Your task to perform on an android device: Add "razer huntsman" to the cart on amazon.com, then select checkout. Image 0: 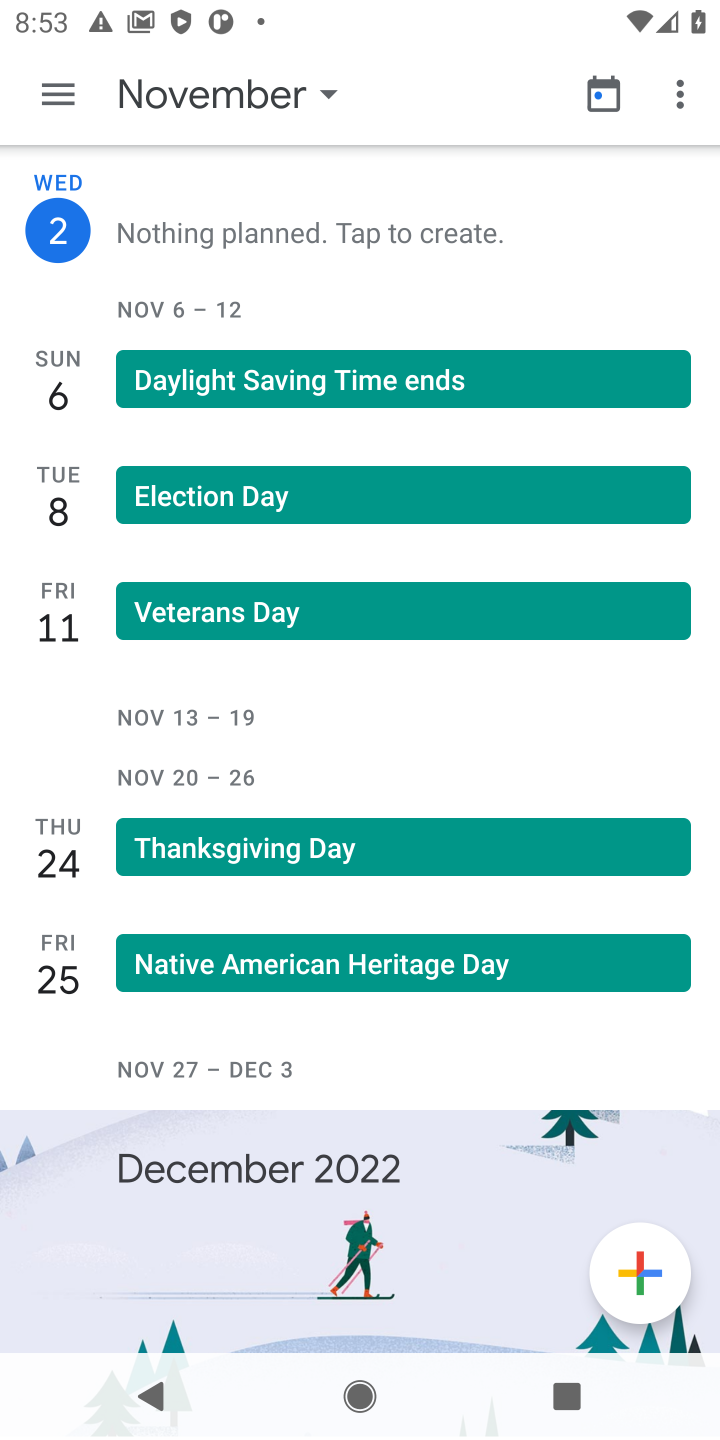
Step 0: press home button
Your task to perform on an android device: Add "razer huntsman" to the cart on amazon.com, then select checkout. Image 1: 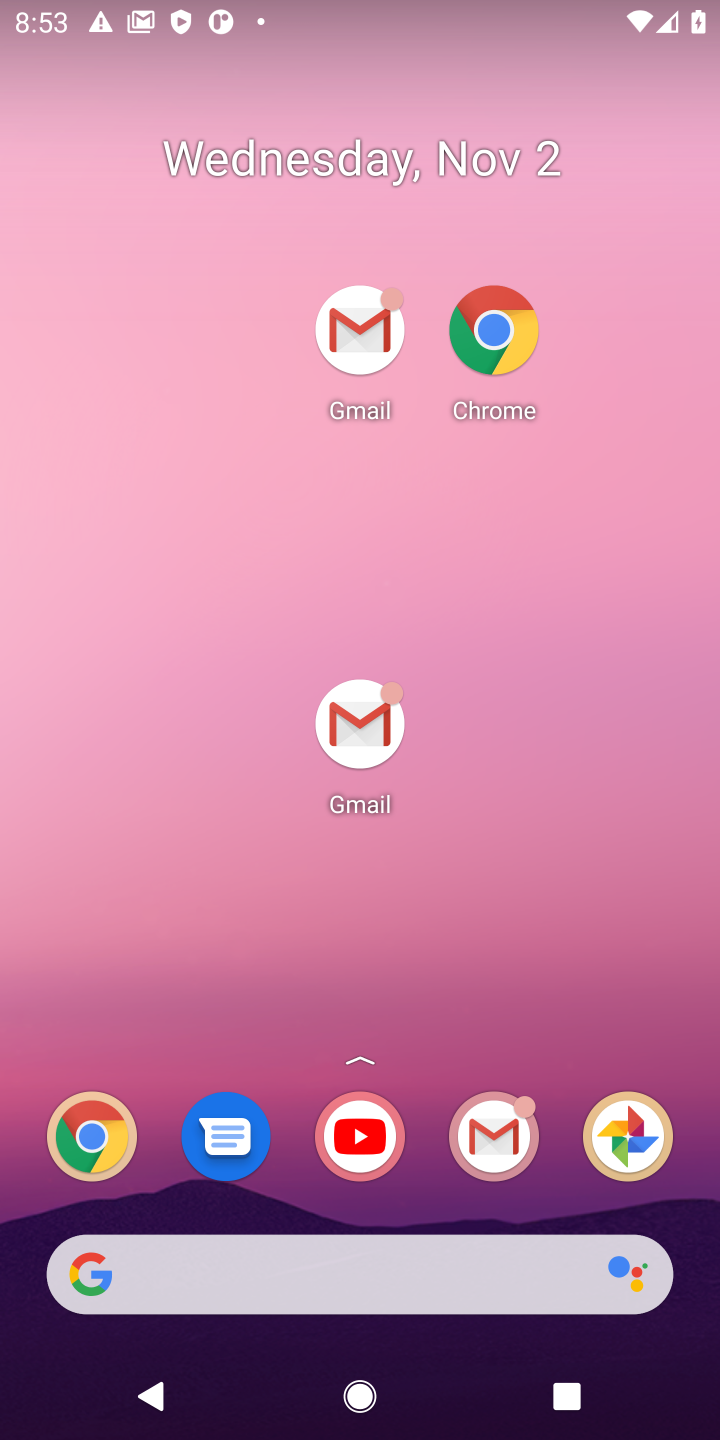
Step 1: drag from (282, 1269) to (289, 408)
Your task to perform on an android device: Add "razer huntsman" to the cart on amazon.com, then select checkout. Image 2: 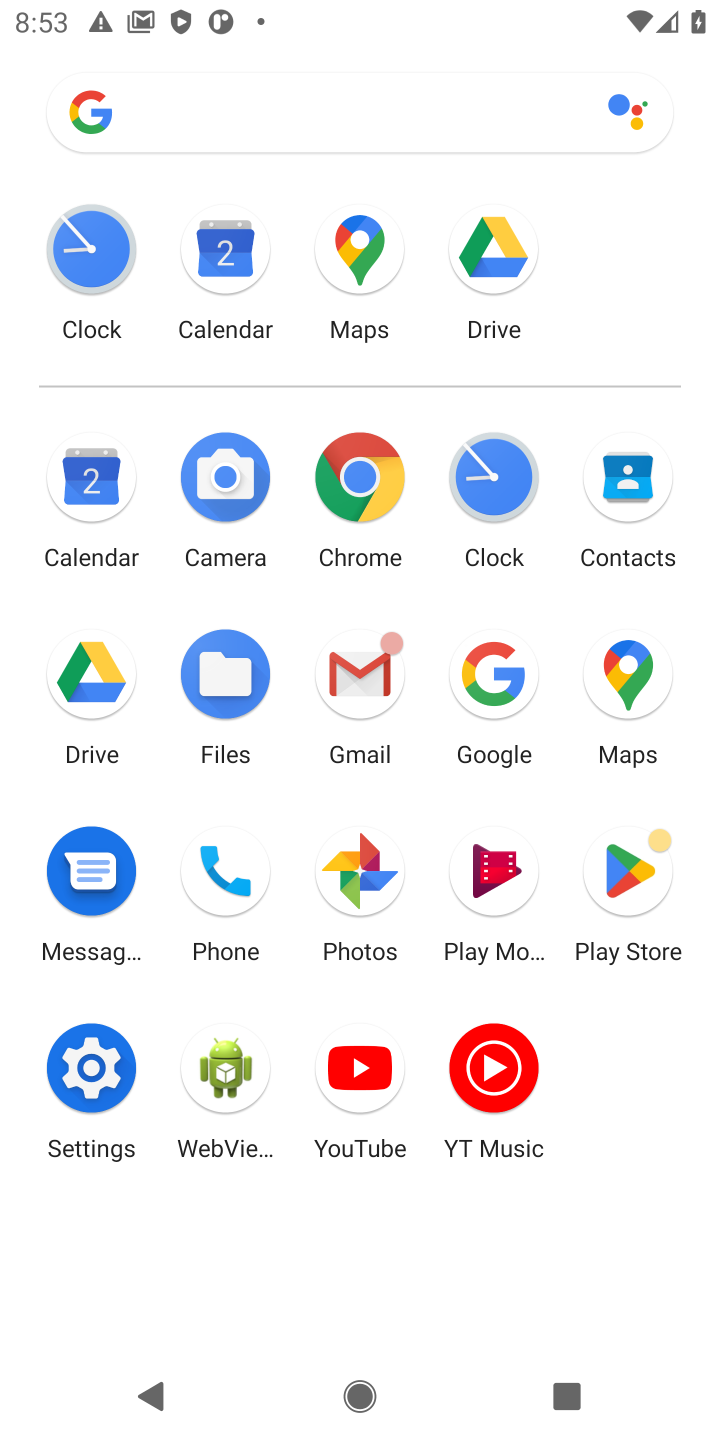
Step 2: click (501, 666)
Your task to perform on an android device: Add "razer huntsman" to the cart on amazon.com, then select checkout. Image 3: 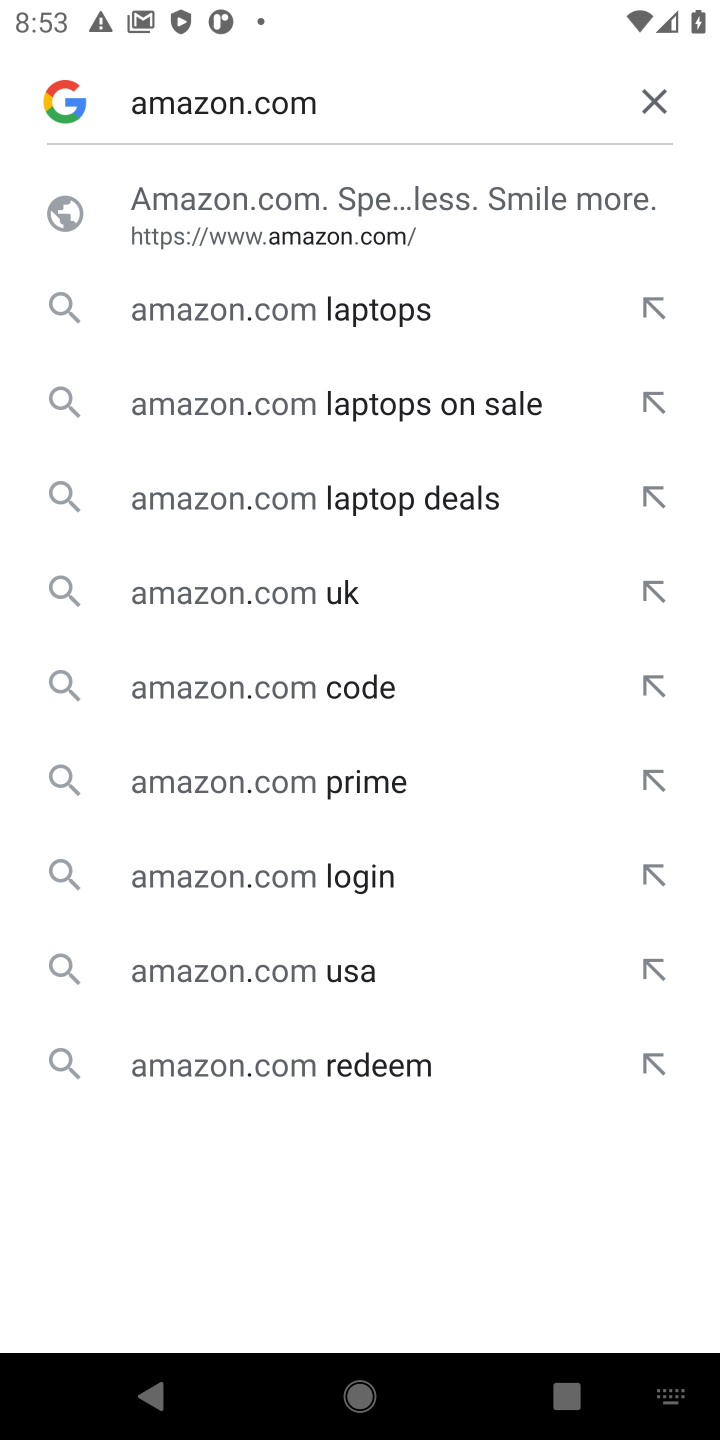
Step 3: click (240, 210)
Your task to perform on an android device: Add "razer huntsman" to the cart on amazon.com, then select checkout. Image 4: 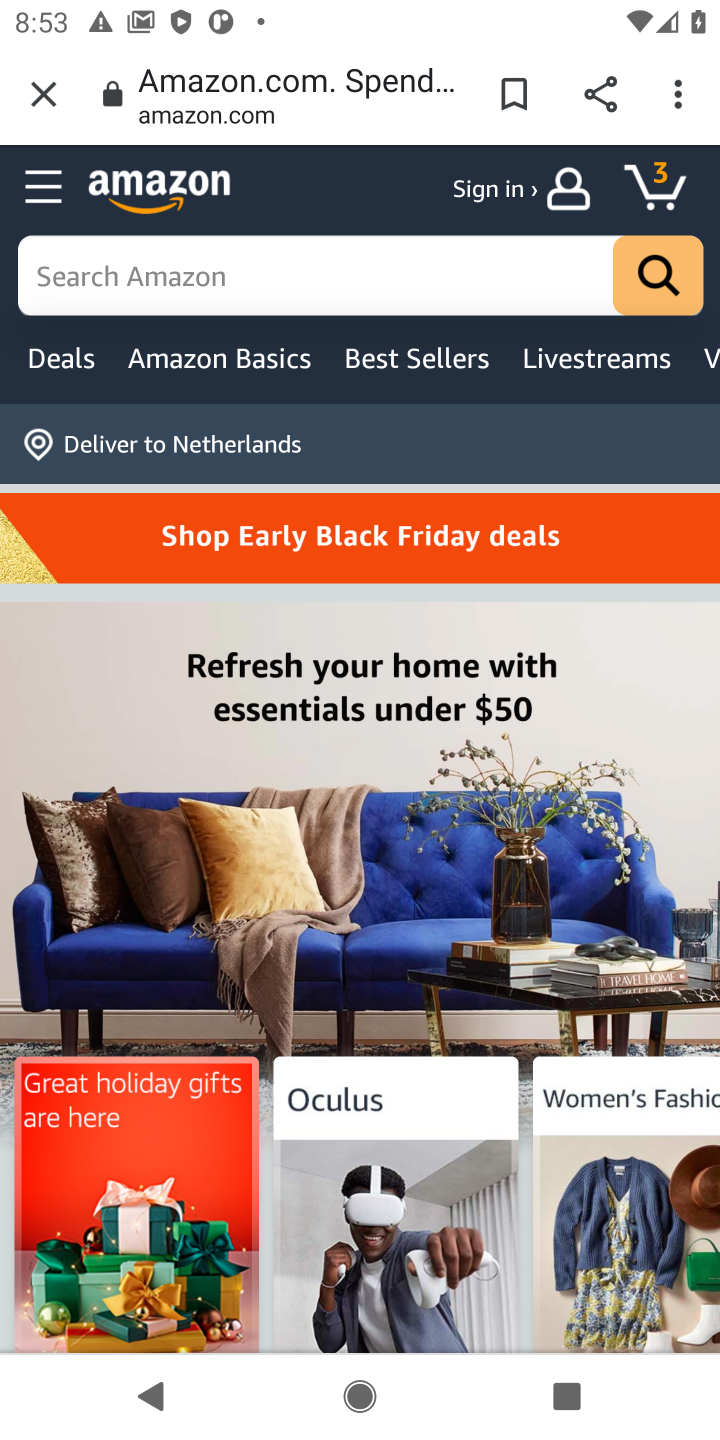
Step 4: click (374, 268)
Your task to perform on an android device: Add "razer huntsman" to the cart on amazon.com, then select checkout. Image 5: 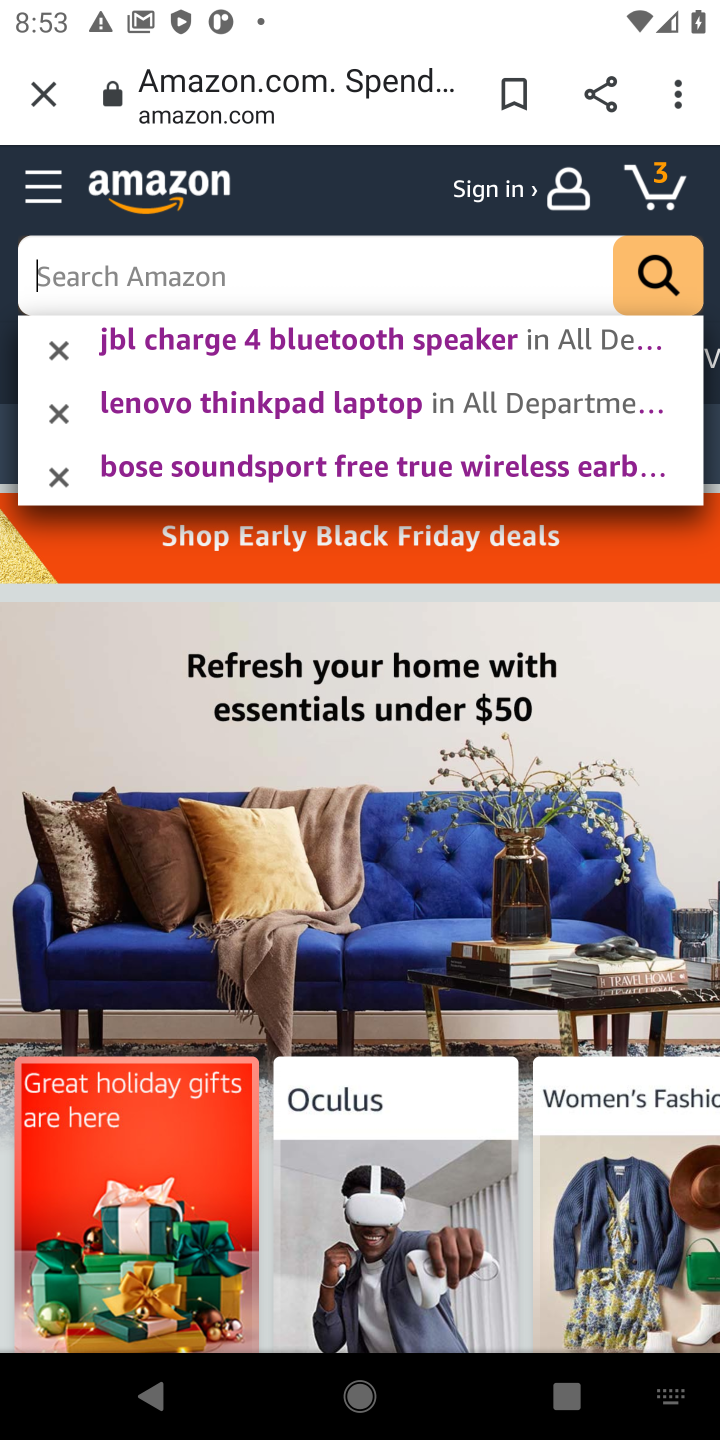
Step 5: click (401, 242)
Your task to perform on an android device: Add "razer huntsman" to the cart on amazon.com, then select checkout. Image 6: 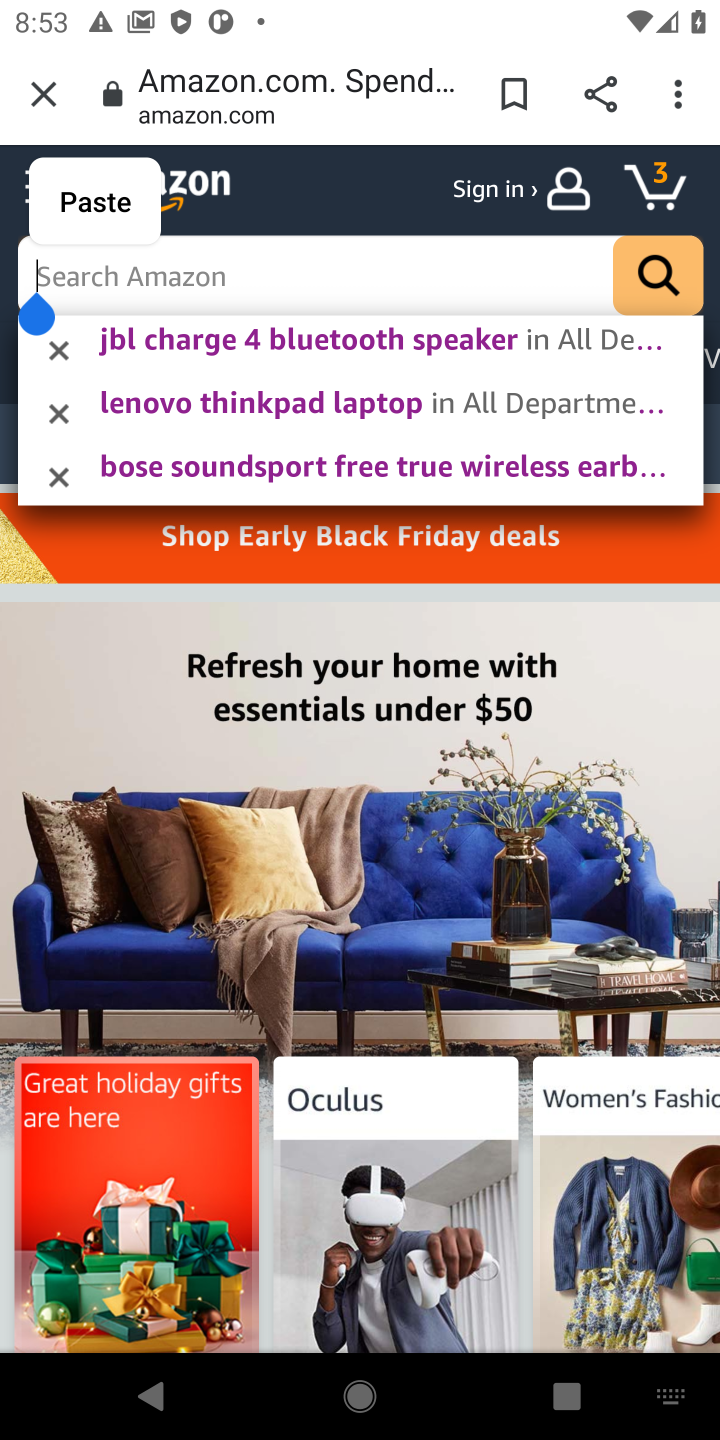
Step 6: type "razer huntsman "
Your task to perform on an android device: Add "razer huntsman" to the cart on amazon.com, then select checkout. Image 7: 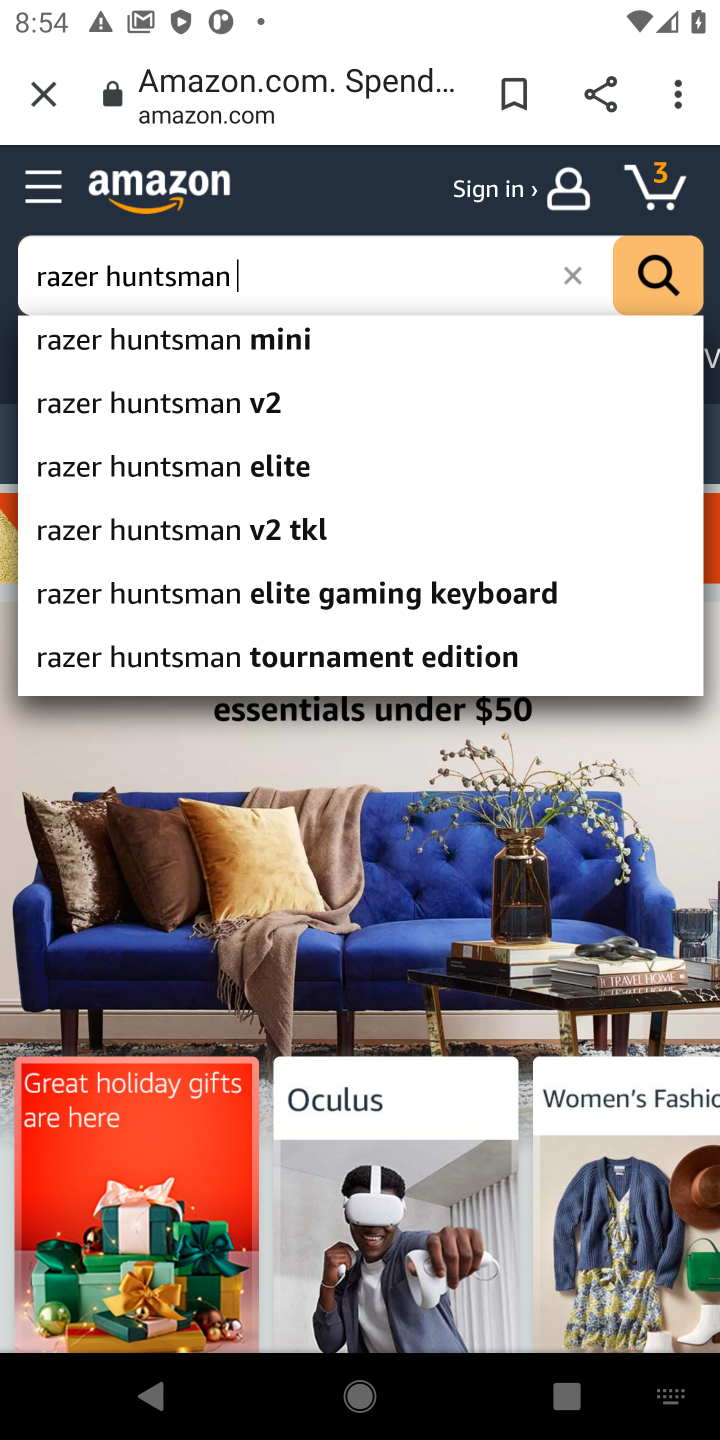
Step 7: click (203, 338)
Your task to perform on an android device: Add "razer huntsman" to the cart on amazon.com, then select checkout. Image 8: 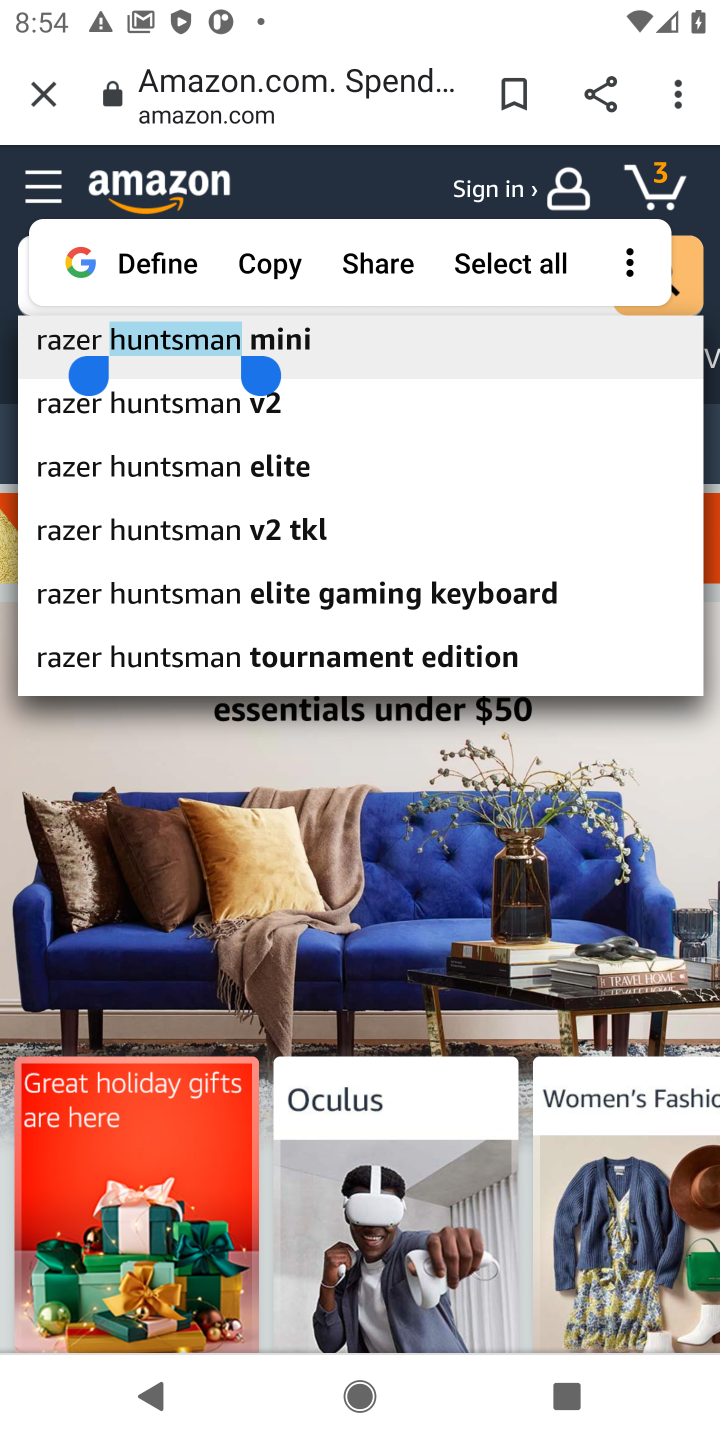
Step 8: click (364, 345)
Your task to perform on an android device: Add "razer huntsman" to the cart on amazon.com, then select checkout. Image 9: 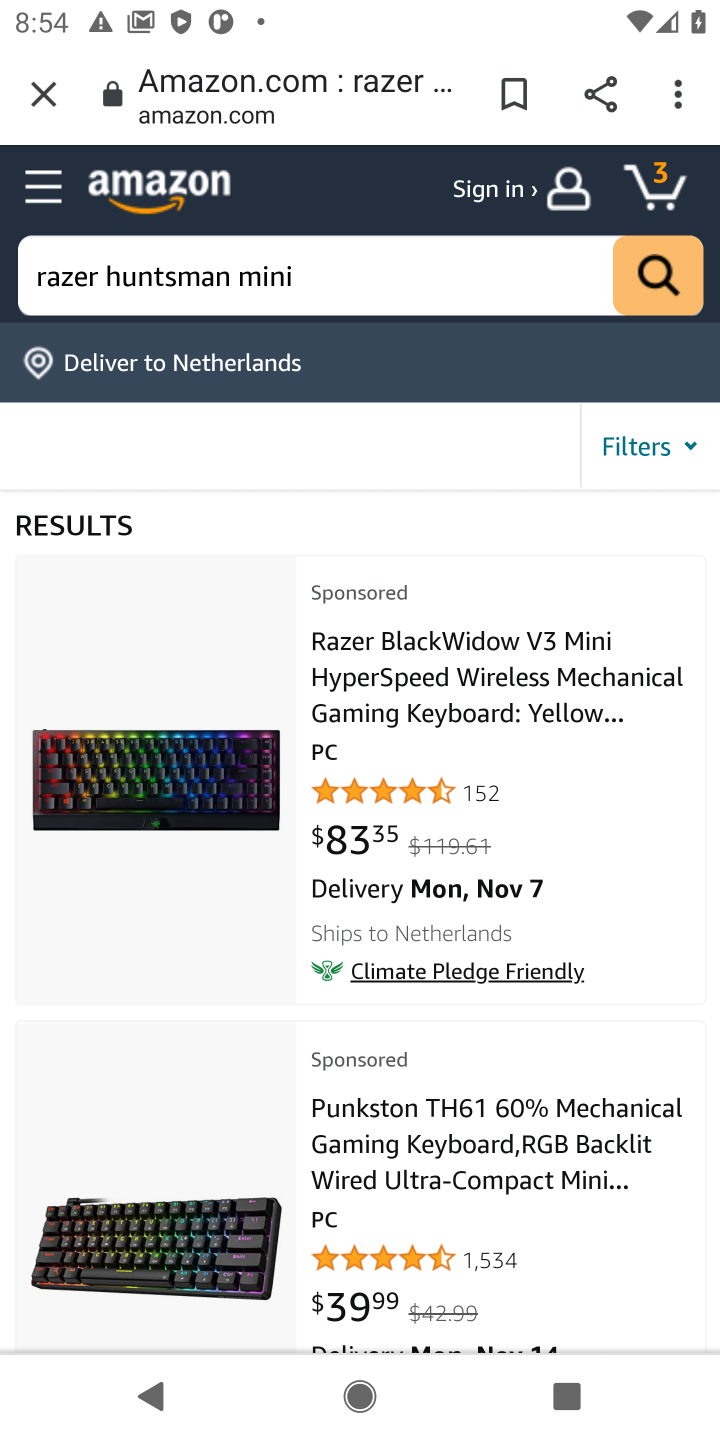
Step 9: click (512, 666)
Your task to perform on an android device: Add "razer huntsman" to the cart on amazon.com, then select checkout. Image 10: 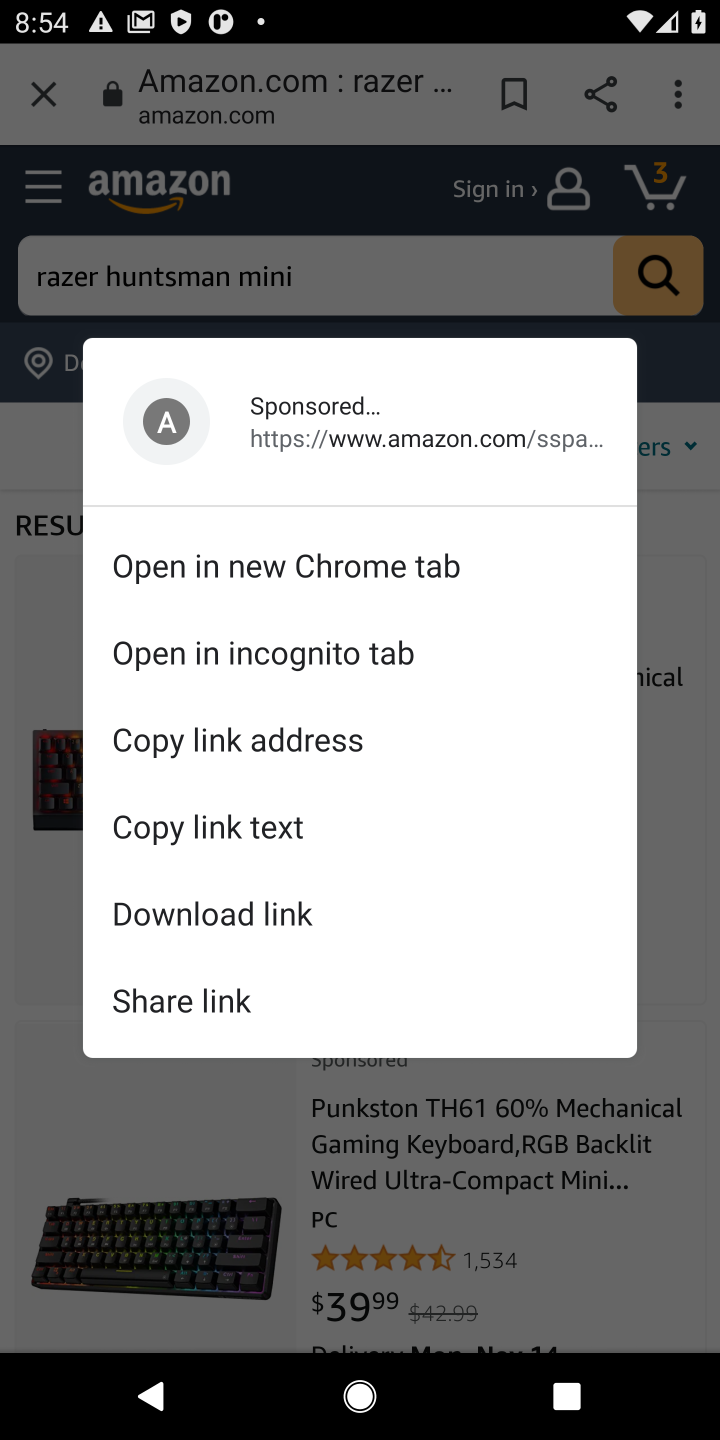
Step 10: click (701, 562)
Your task to perform on an android device: Add "razer huntsman" to the cart on amazon.com, then select checkout. Image 11: 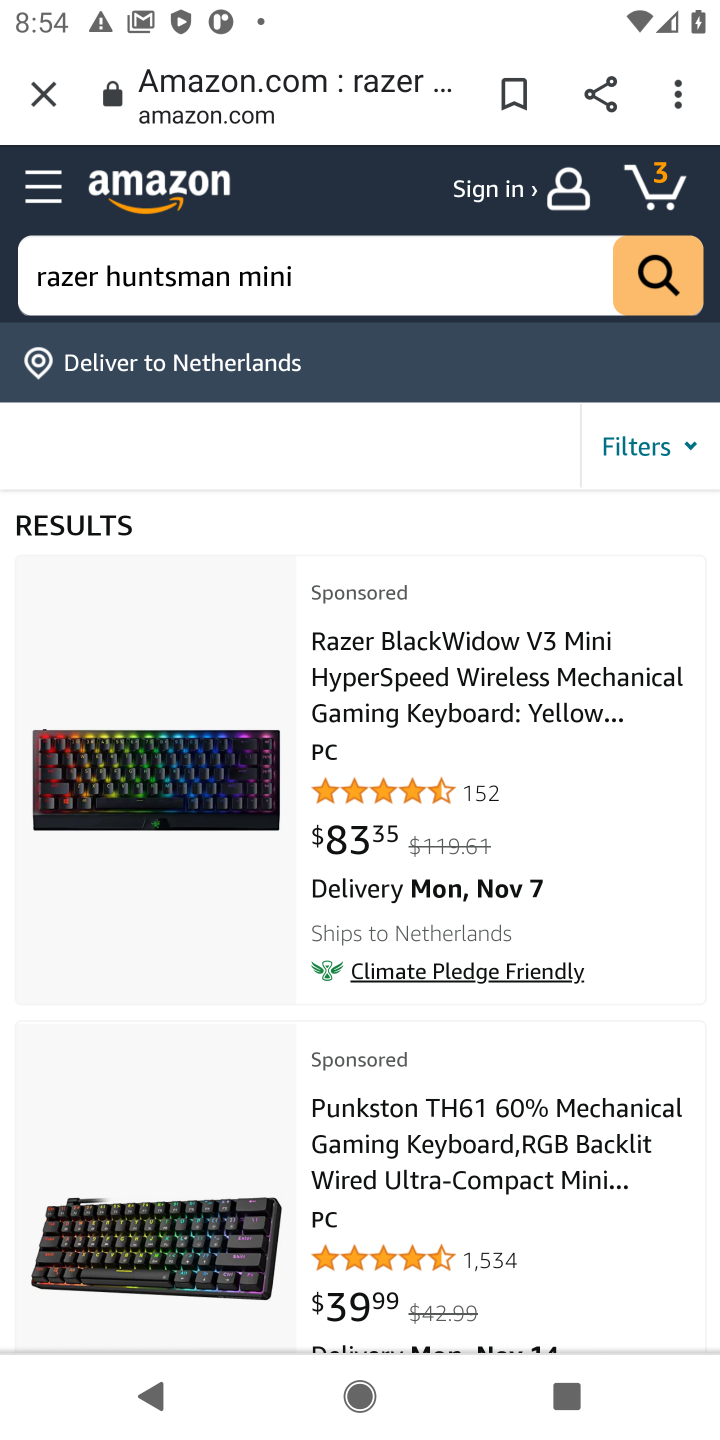
Step 11: click (402, 895)
Your task to perform on an android device: Add "razer huntsman" to the cart on amazon.com, then select checkout. Image 12: 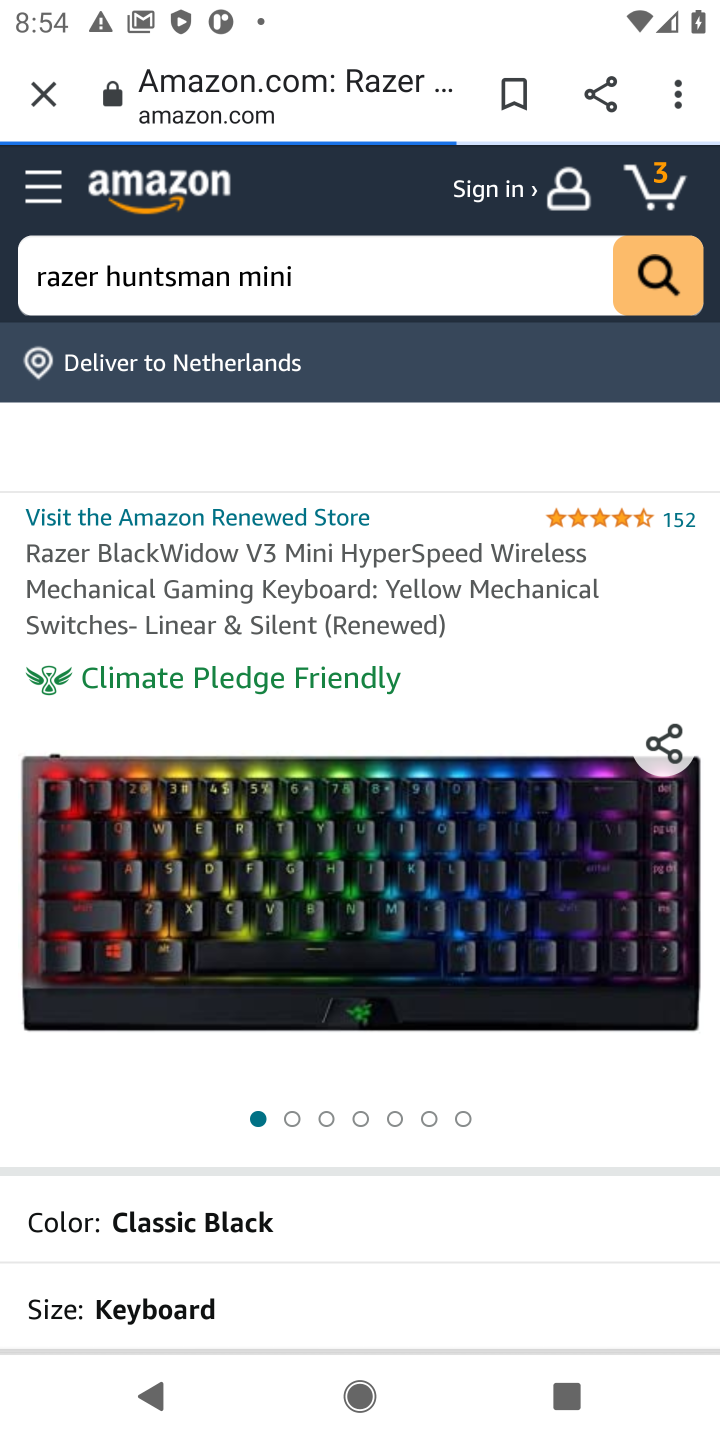
Step 12: drag from (500, 1098) to (497, 474)
Your task to perform on an android device: Add "razer huntsman" to the cart on amazon.com, then select checkout. Image 13: 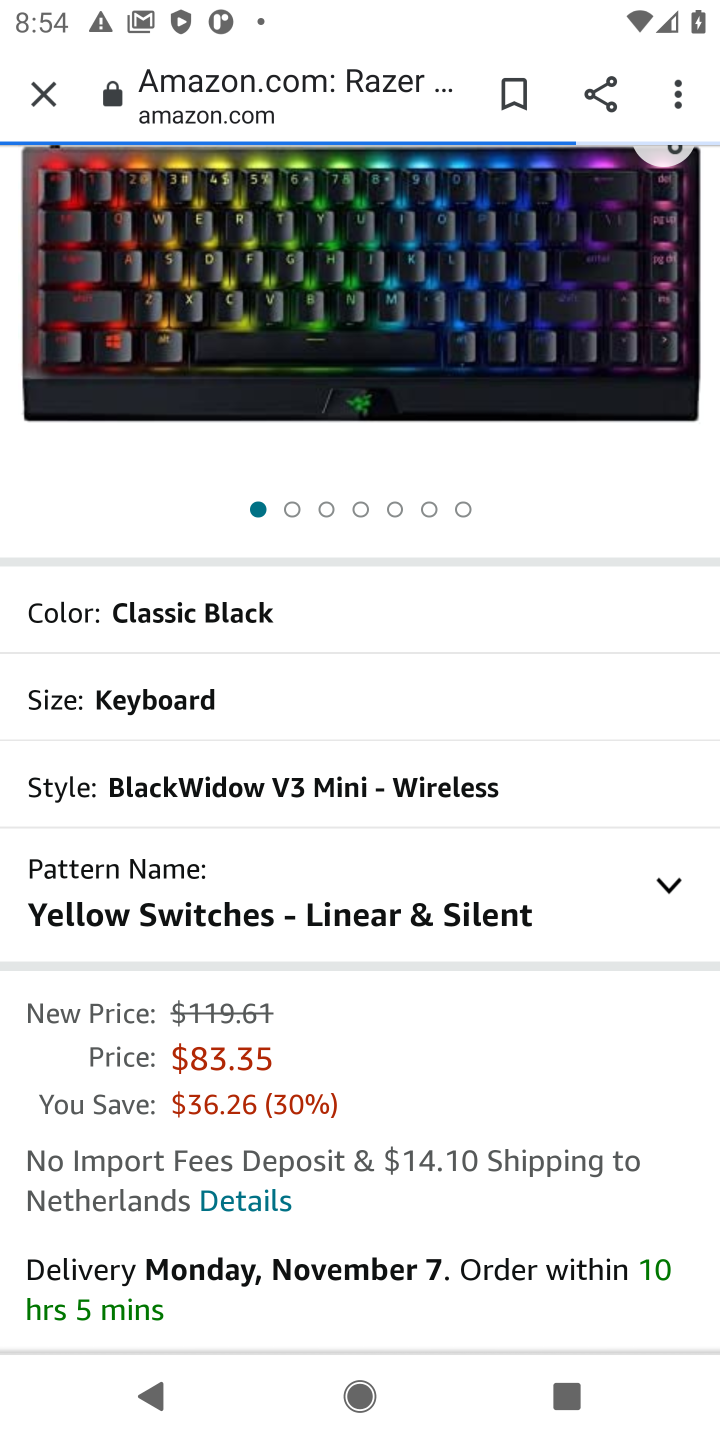
Step 13: drag from (422, 971) to (466, 323)
Your task to perform on an android device: Add "razer huntsman" to the cart on amazon.com, then select checkout. Image 14: 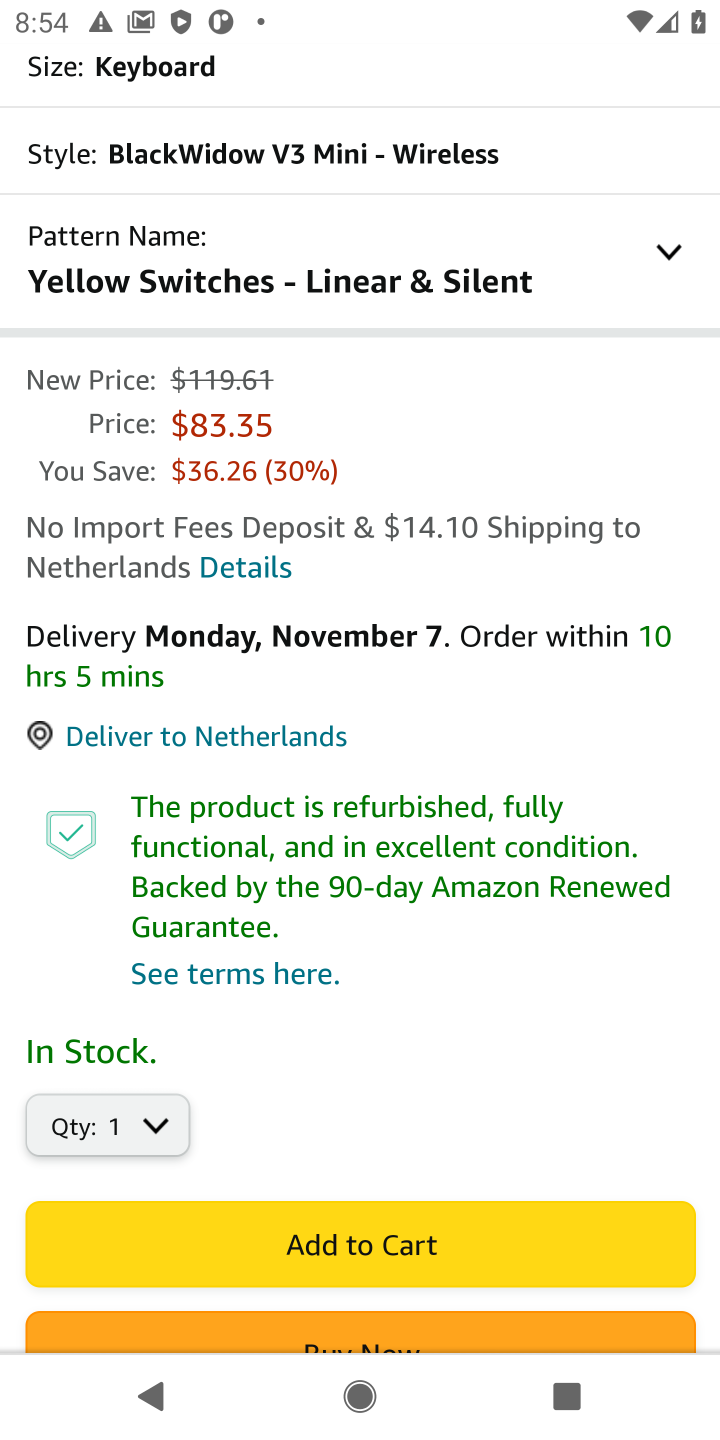
Step 14: drag from (377, 1095) to (421, 557)
Your task to perform on an android device: Add "razer huntsman" to the cart on amazon.com, then select checkout. Image 15: 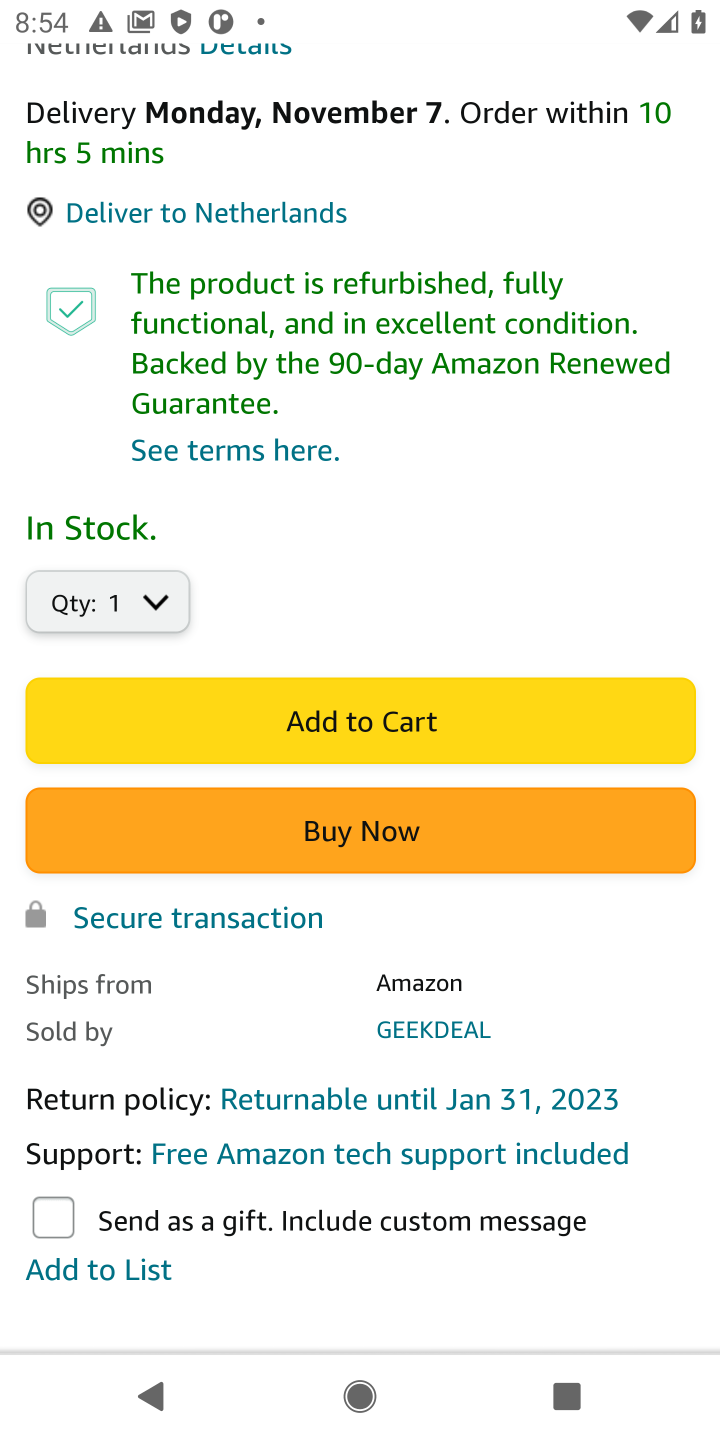
Step 15: click (430, 701)
Your task to perform on an android device: Add "razer huntsman" to the cart on amazon.com, then select checkout. Image 16: 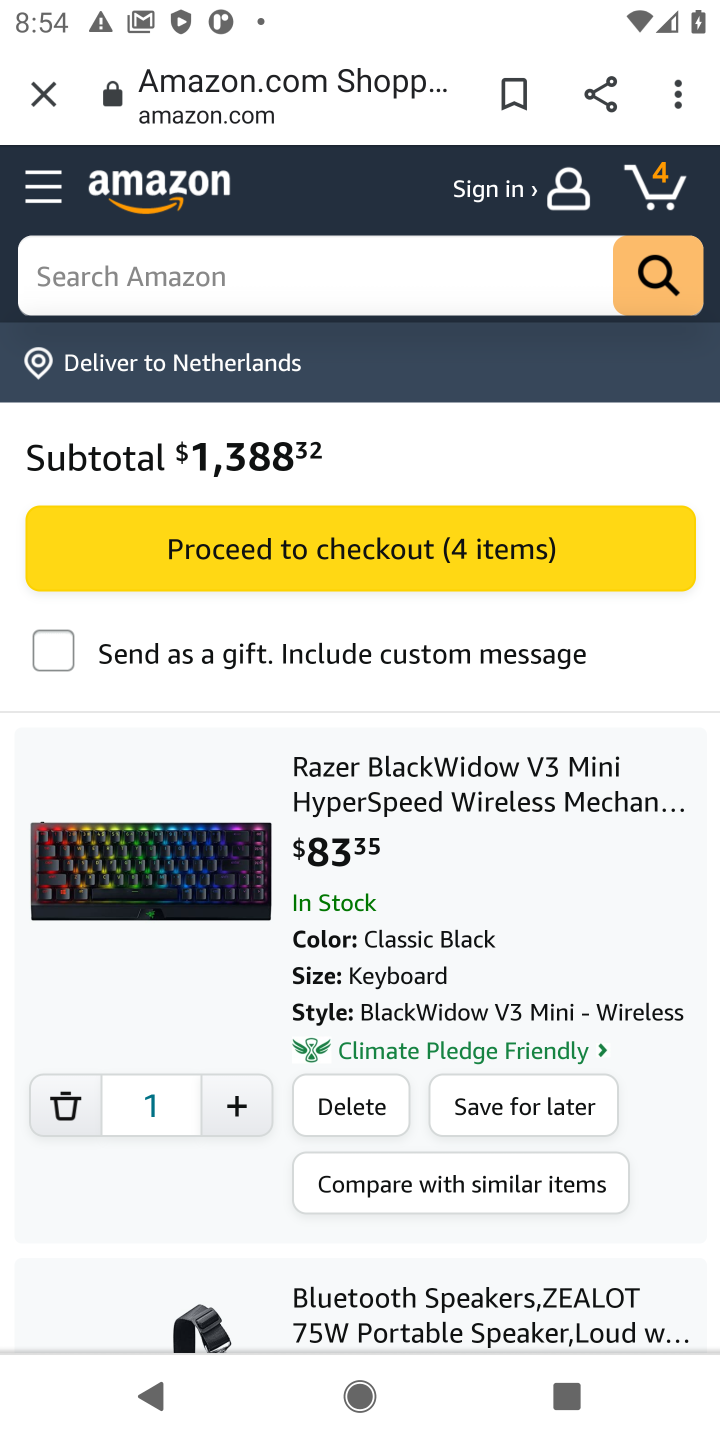
Step 16: task complete